Your task to perform on an android device: check data usage Image 0: 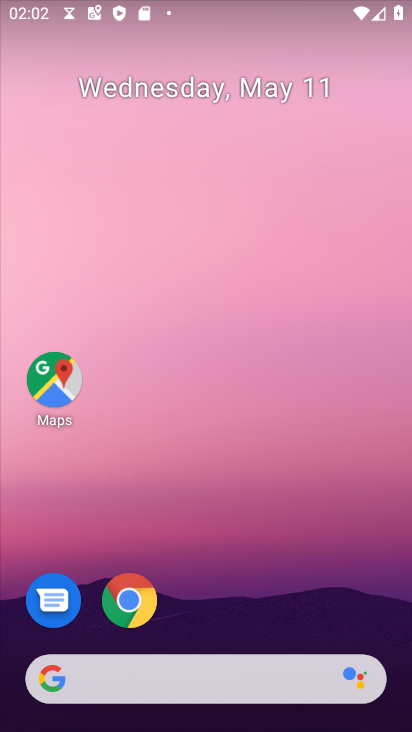
Step 0: drag from (276, 386) to (284, 314)
Your task to perform on an android device: check data usage Image 1: 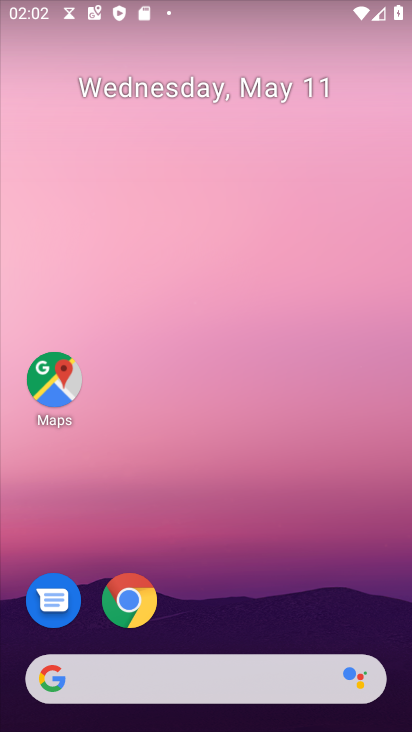
Step 1: drag from (254, 579) to (298, 253)
Your task to perform on an android device: check data usage Image 2: 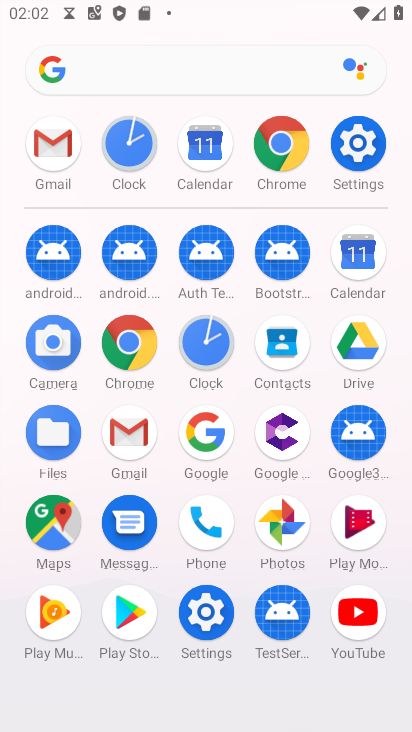
Step 2: click (358, 141)
Your task to perform on an android device: check data usage Image 3: 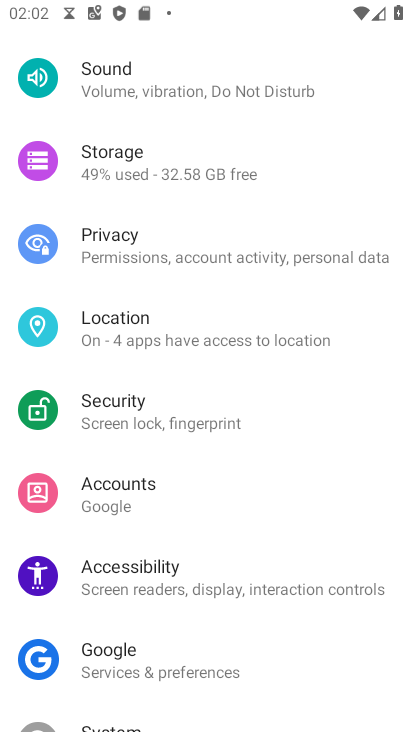
Step 3: drag from (202, 161) to (157, 645)
Your task to perform on an android device: check data usage Image 4: 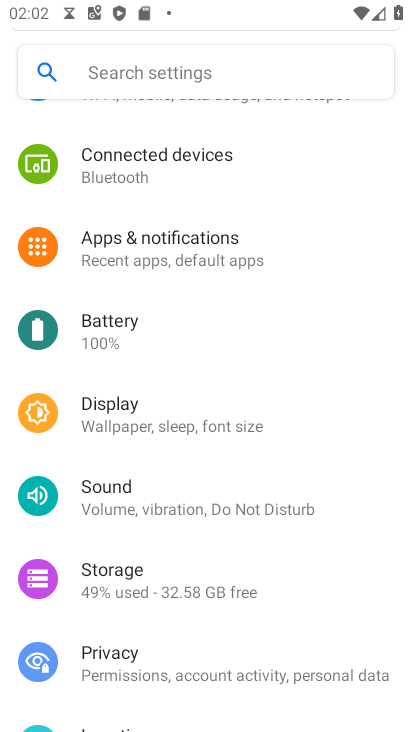
Step 4: drag from (159, 168) to (149, 592)
Your task to perform on an android device: check data usage Image 5: 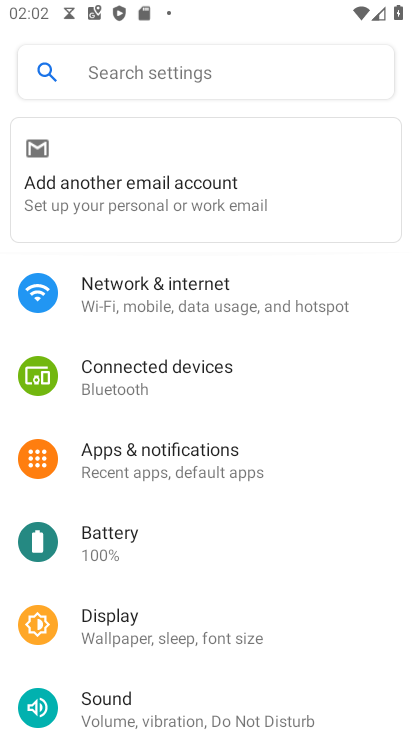
Step 5: click (126, 301)
Your task to perform on an android device: check data usage Image 6: 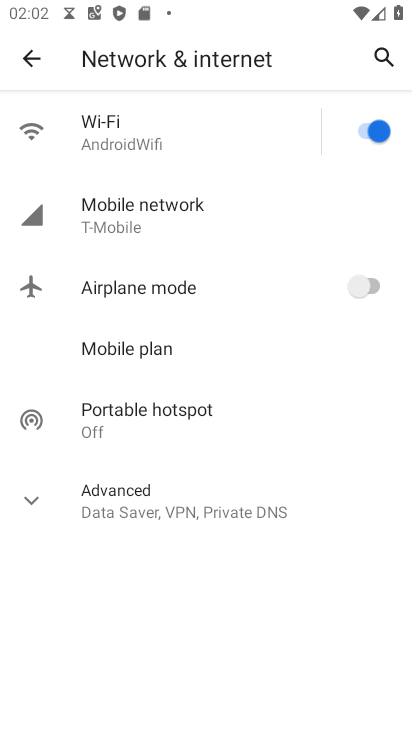
Step 6: click (181, 209)
Your task to perform on an android device: check data usage Image 7: 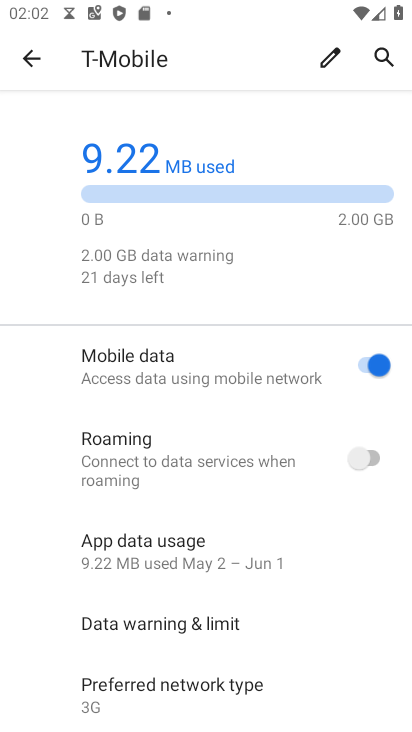
Step 7: click (199, 359)
Your task to perform on an android device: check data usage Image 8: 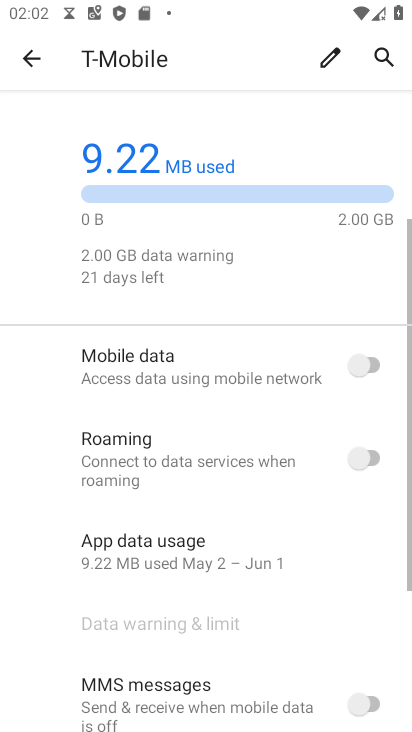
Step 8: click (367, 358)
Your task to perform on an android device: check data usage Image 9: 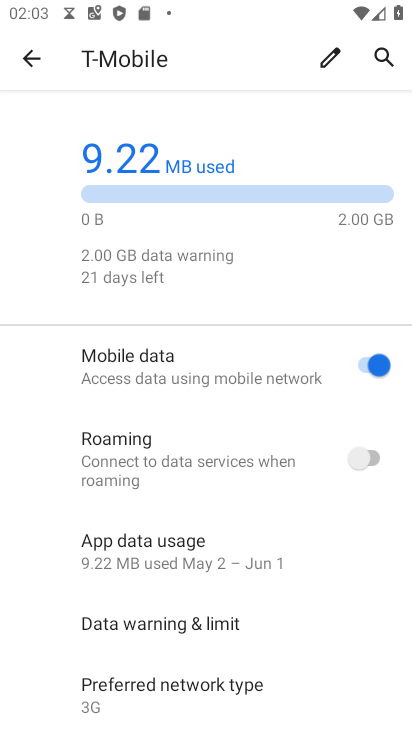
Step 9: task complete